Your task to perform on an android device: open device folders in google photos Image 0: 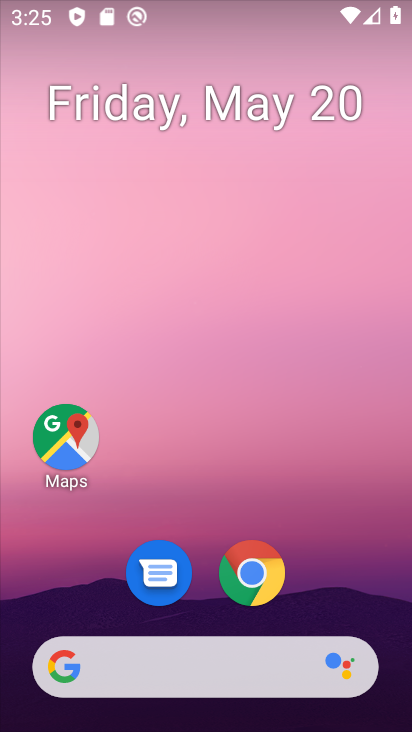
Step 0: drag from (326, 542) to (257, 172)
Your task to perform on an android device: open device folders in google photos Image 1: 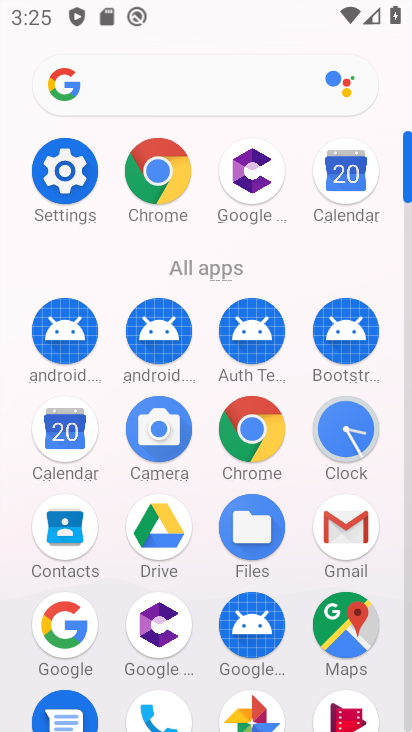
Step 1: drag from (256, 580) to (263, 338)
Your task to perform on an android device: open device folders in google photos Image 2: 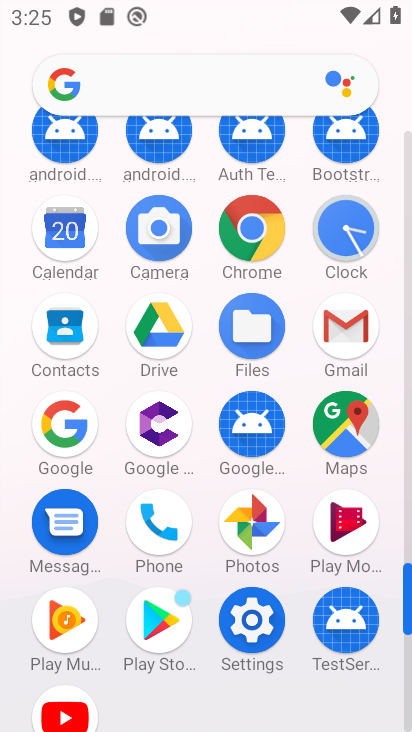
Step 2: click (264, 526)
Your task to perform on an android device: open device folders in google photos Image 3: 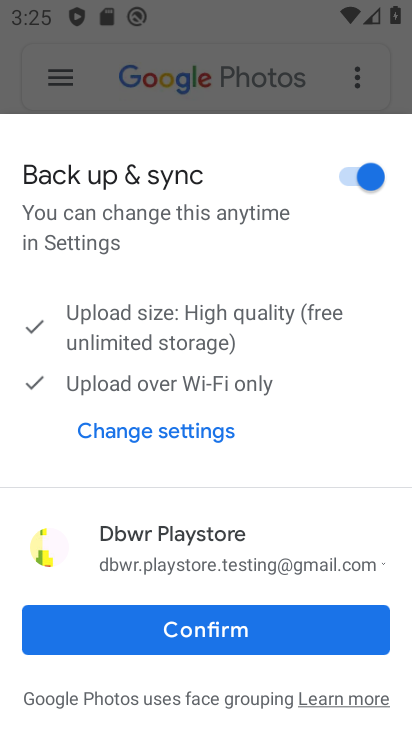
Step 3: click (260, 638)
Your task to perform on an android device: open device folders in google photos Image 4: 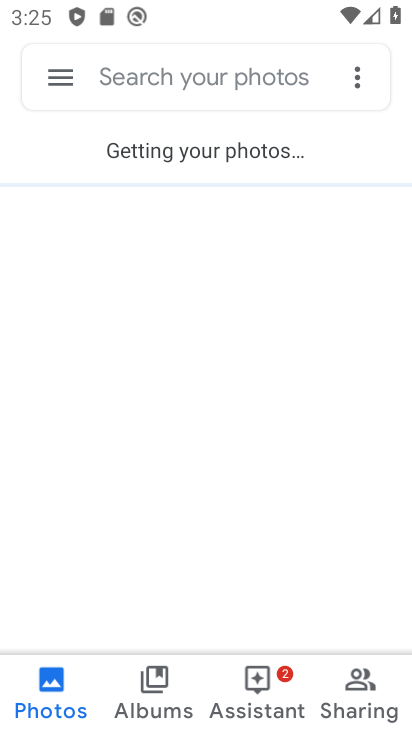
Step 4: click (42, 76)
Your task to perform on an android device: open device folders in google photos Image 5: 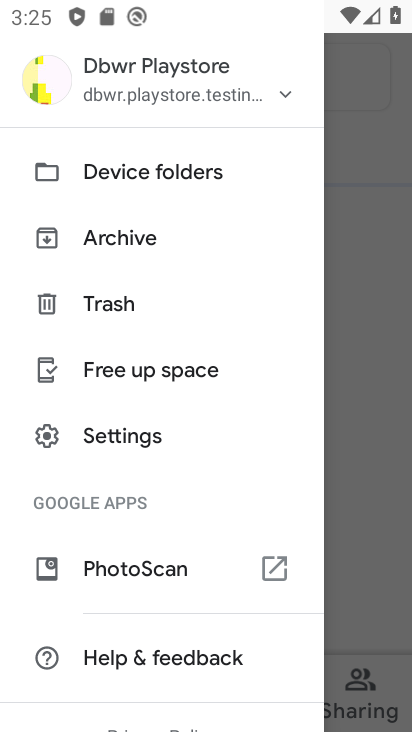
Step 5: click (146, 162)
Your task to perform on an android device: open device folders in google photos Image 6: 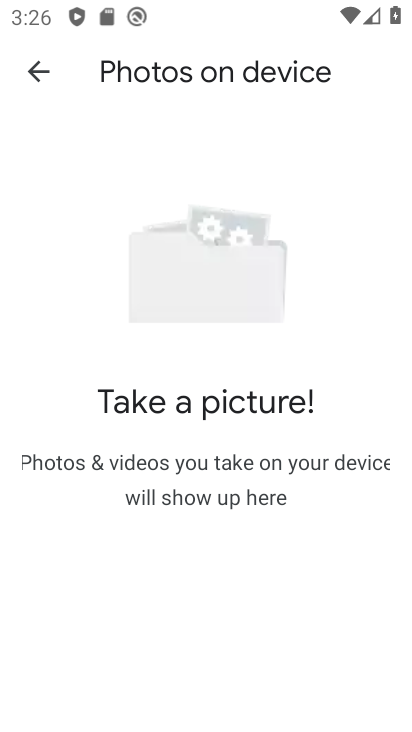
Step 6: task complete